Your task to perform on an android device: turn on improve location accuracy Image 0: 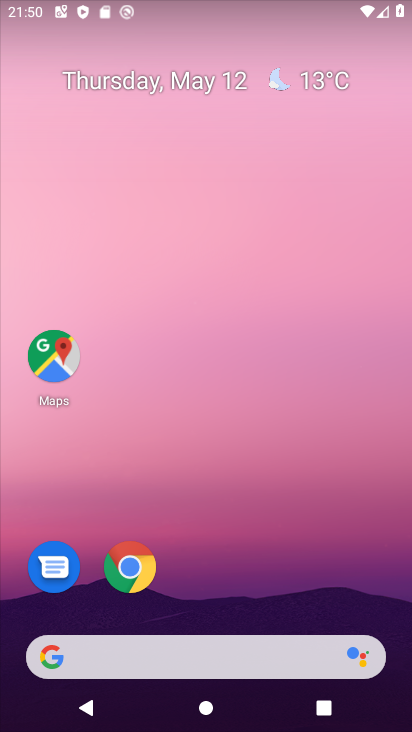
Step 0: drag from (221, 615) to (256, 74)
Your task to perform on an android device: turn on improve location accuracy Image 1: 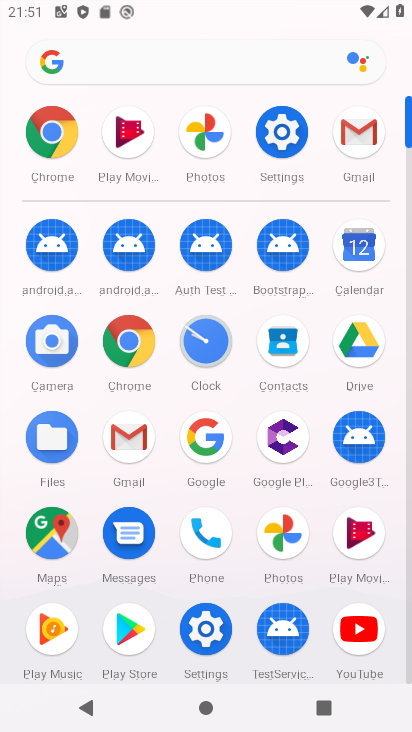
Step 1: click (281, 124)
Your task to perform on an android device: turn on improve location accuracy Image 2: 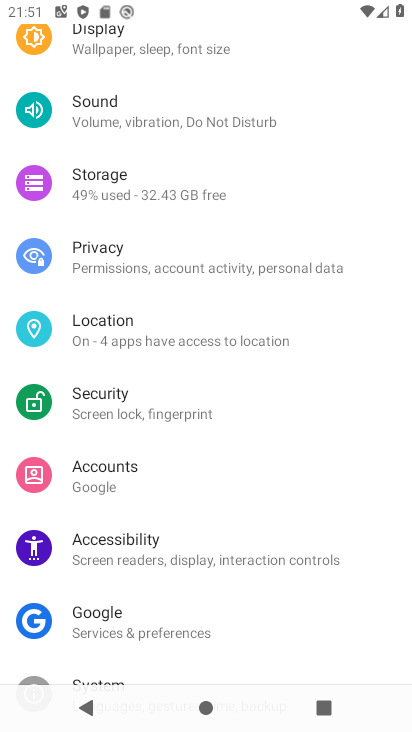
Step 2: click (142, 316)
Your task to perform on an android device: turn on improve location accuracy Image 3: 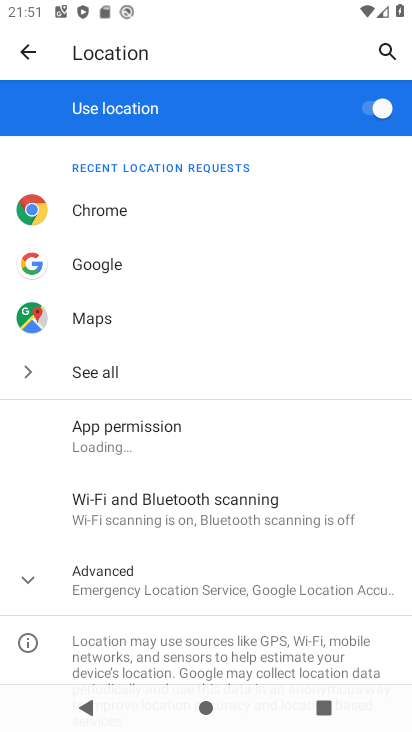
Step 3: click (30, 581)
Your task to perform on an android device: turn on improve location accuracy Image 4: 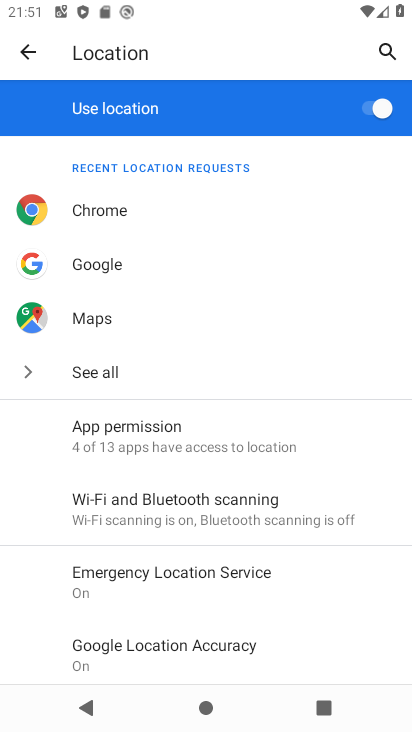
Step 4: click (205, 651)
Your task to perform on an android device: turn on improve location accuracy Image 5: 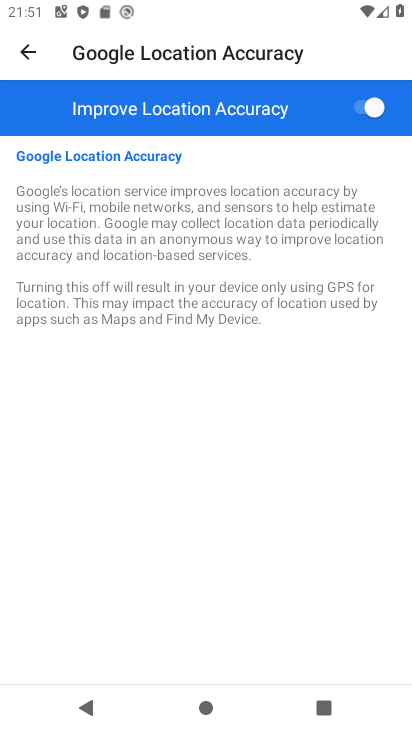
Step 5: task complete